Your task to perform on an android device: change your default location settings in chrome Image 0: 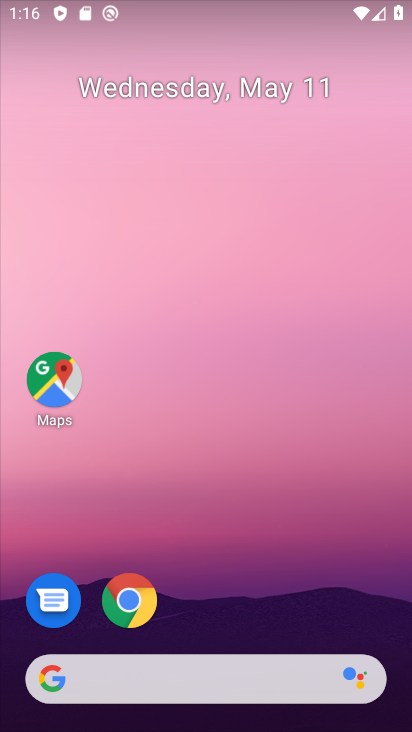
Step 0: drag from (271, 614) to (269, 299)
Your task to perform on an android device: change your default location settings in chrome Image 1: 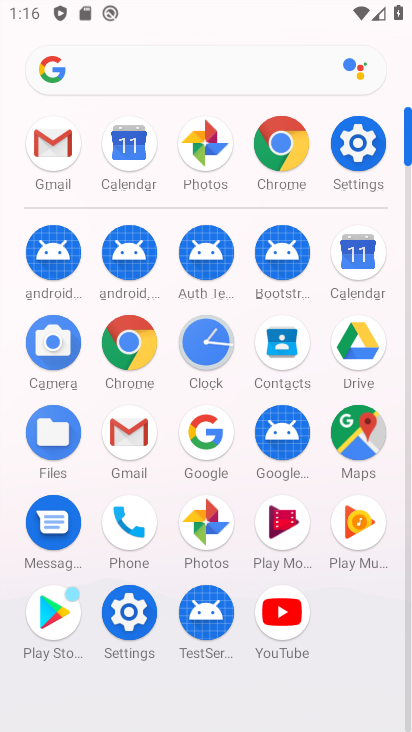
Step 1: click (286, 146)
Your task to perform on an android device: change your default location settings in chrome Image 2: 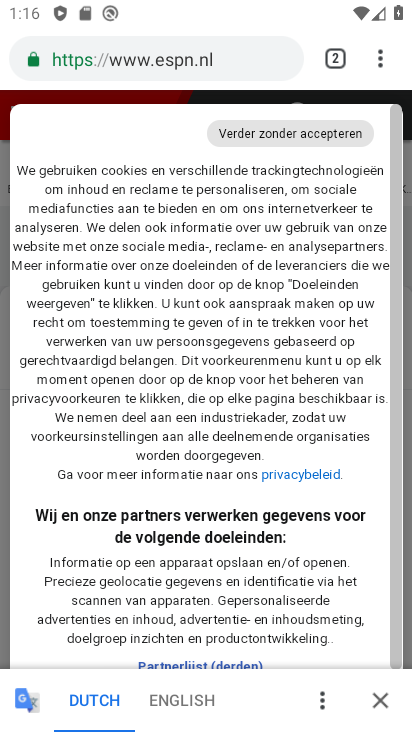
Step 2: click (371, 57)
Your task to perform on an android device: change your default location settings in chrome Image 3: 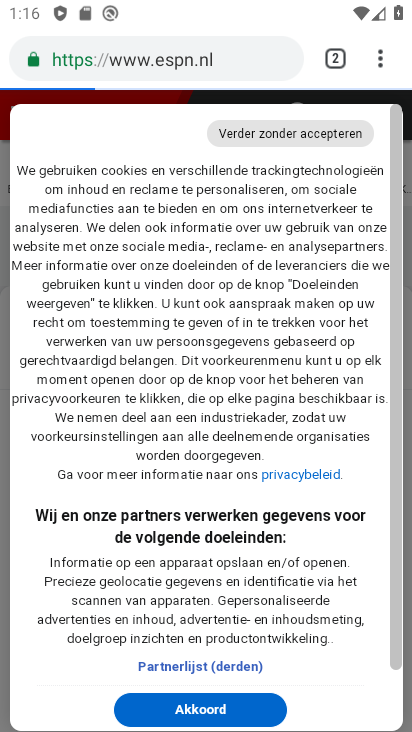
Step 3: click (361, 53)
Your task to perform on an android device: change your default location settings in chrome Image 4: 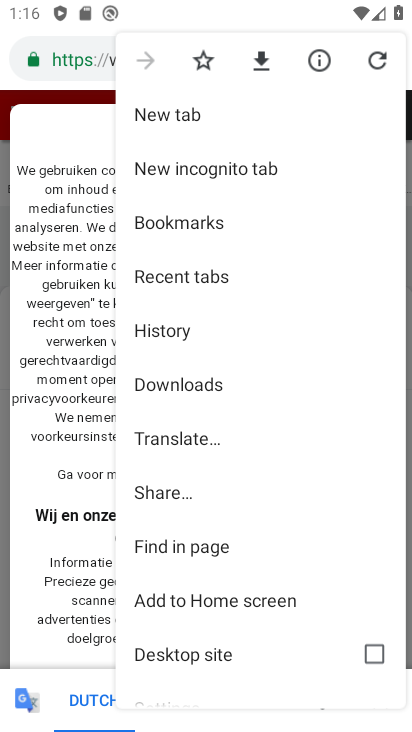
Step 4: drag from (233, 578) to (267, 319)
Your task to perform on an android device: change your default location settings in chrome Image 5: 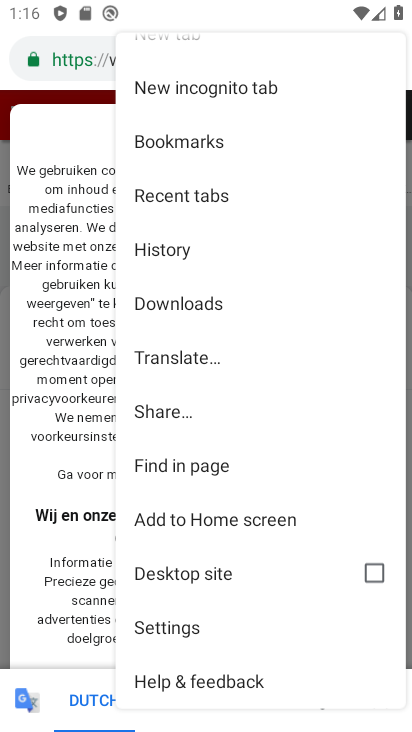
Step 5: click (181, 629)
Your task to perform on an android device: change your default location settings in chrome Image 6: 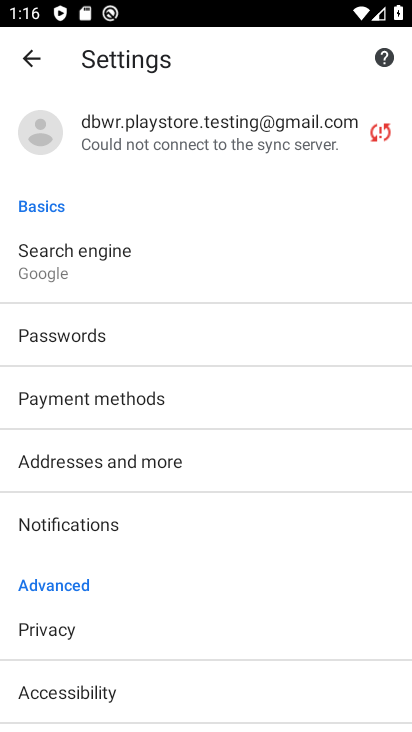
Step 6: click (104, 265)
Your task to perform on an android device: change your default location settings in chrome Image 7: 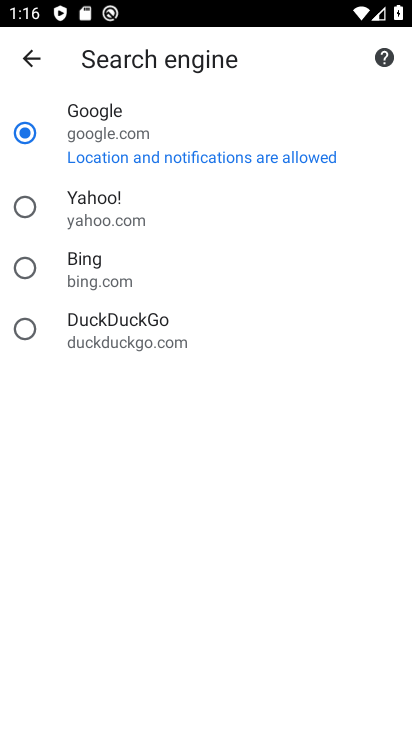
Step 7: click (36, 62)
Your task to perform on an android device: change your default location settings in chrome Image 8: 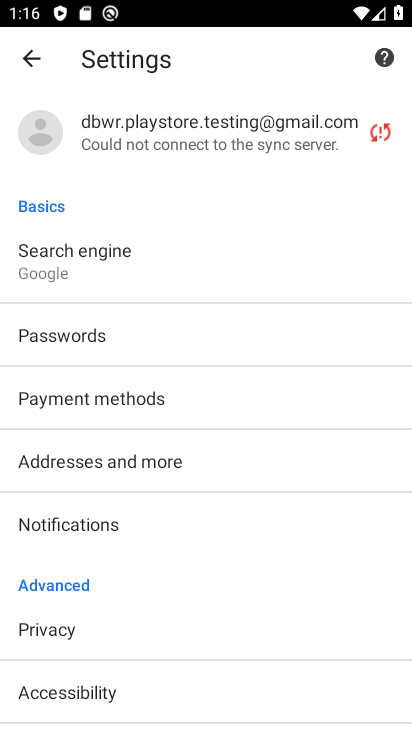
Step 8: drag from (191, 657) to (268, 350)
Your task to perform on an android device: change your default location settings in chrome Image 9: 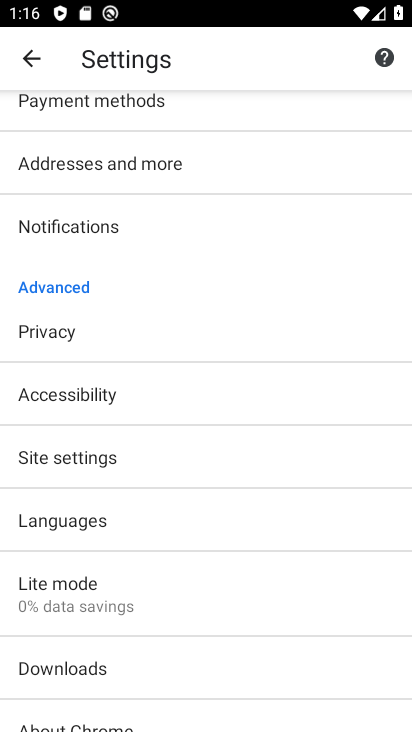
Step 9: click (111, 520)
Your task to perform on an android device: change your default location settings in chrome Image 10: 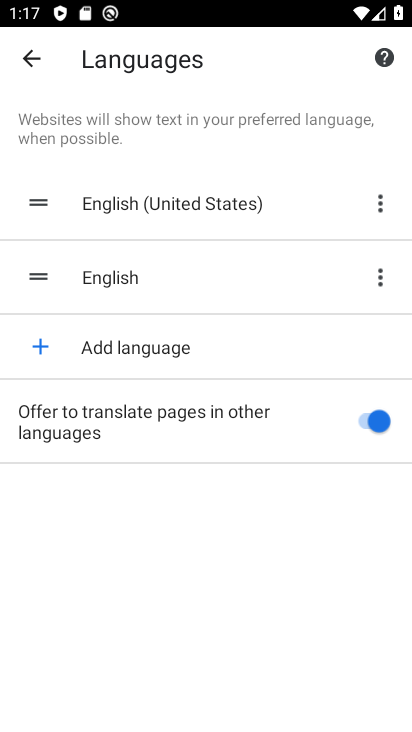
Step 10: click (37, 62)
Your task to perform on an android device: change your default location settings in chrome Image 11: 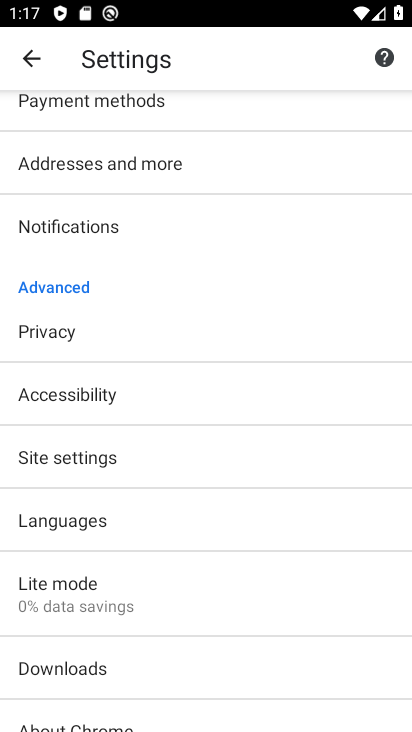
Step 11: drag from (173, 581) to (275, 416)
Your task to perform on an android device: change your default location settings in chrome Image 12: 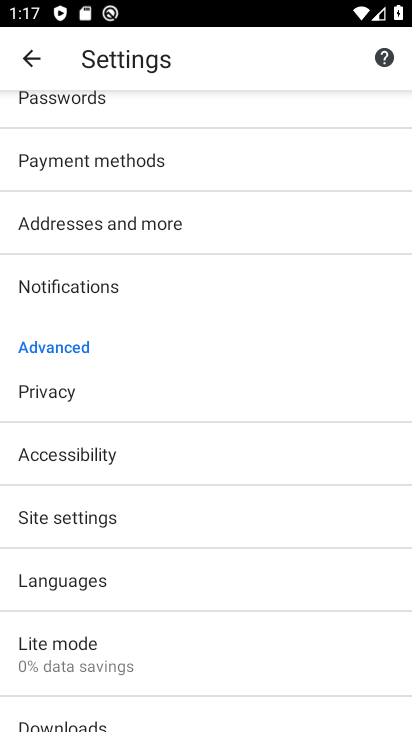
Step 12: drag from (184, 596) to (317, 684)
Your task to perform on an android device: change your default location settings in chrome Image 13: 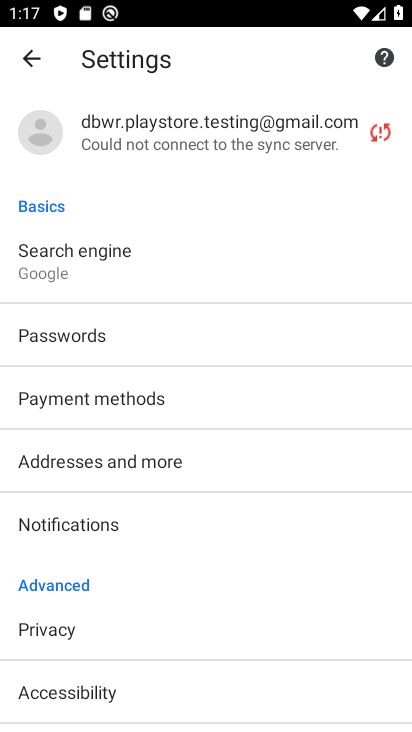
Step 13: click (119, 269)
Your task to perform on an android device: change your default location settings in chrome Image 14: 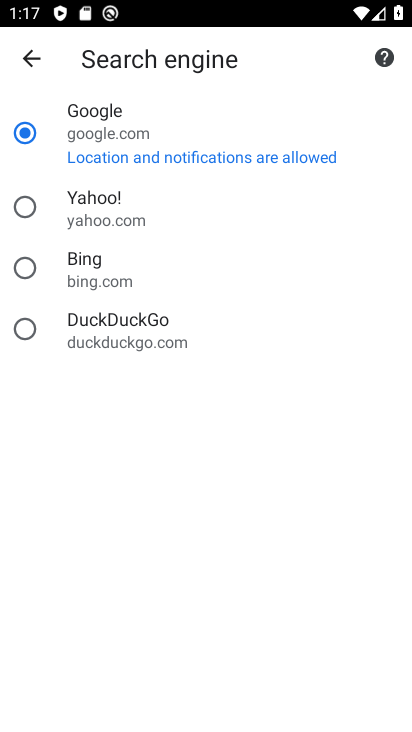
Step 14: click (36, 48)
Your task to perform on an android device: change your default location settings in chrome Image 15: 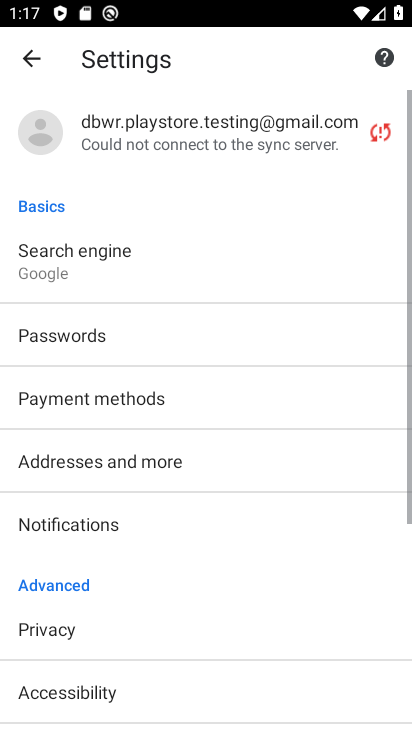
Step 15: drag from (101, 670) to (163, 448)
Your task to perform on an android device: change your default location settings in chrome Image 16: 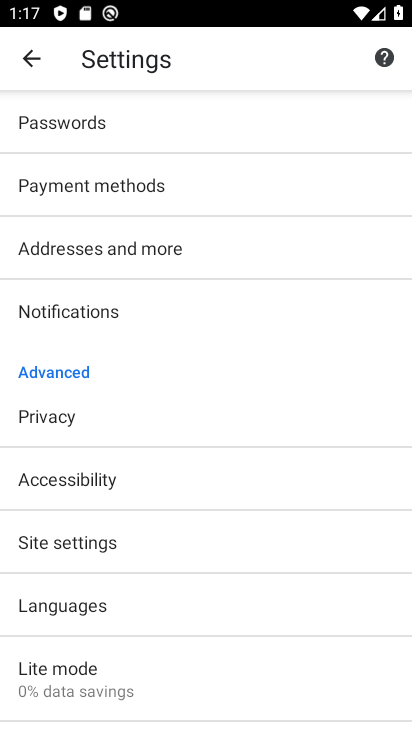
Step 16: click (104, 547)
Your task to perform on an android device: change your default location settings in chrome Image 17: 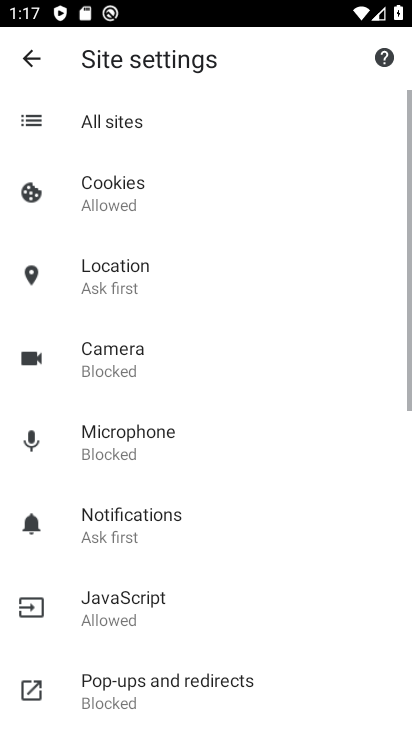
Step 17: click (166, 284)
Your task to perform on an android device: change your default location settings in chrome Image 18: 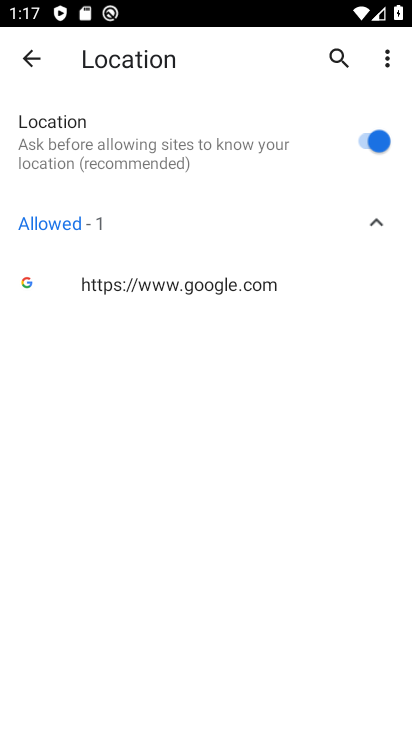
Step 18: click (370, 136)
Your task to perform on an android device: change your default location settings in chrome Image 19: 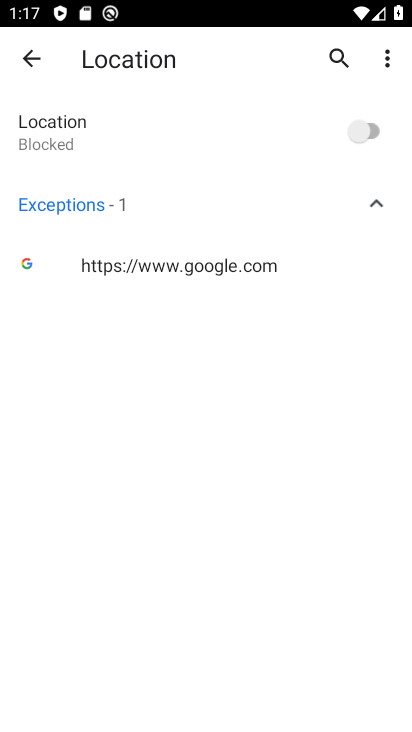
Step 19: task complete